Your task to perform on an android device: Open Google Chrome Image 0: 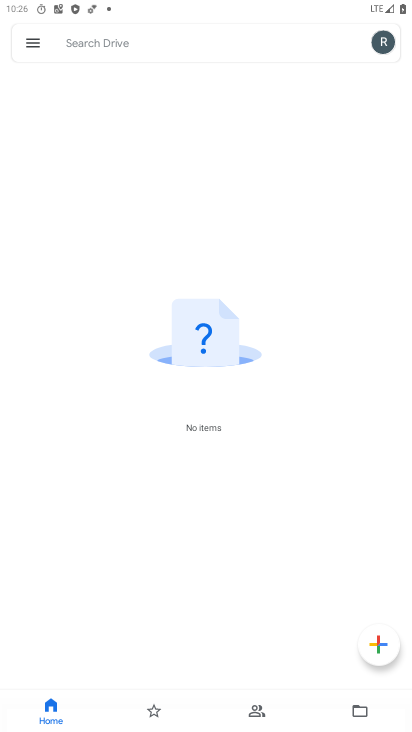
Step 0: press home button
Your task to perform on an android device: Open Google Chrome Image 1: 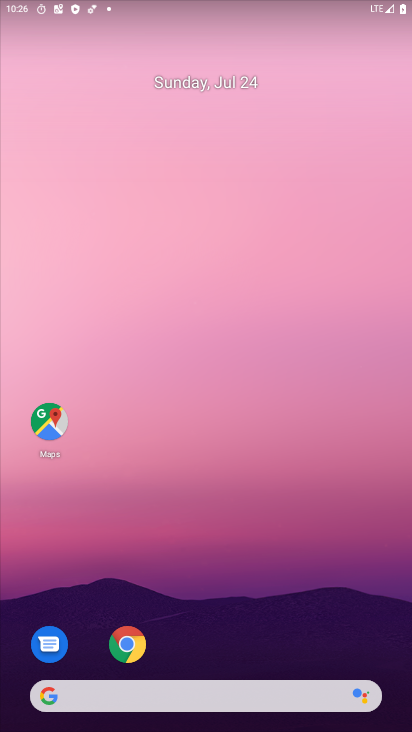
Step 1: click (136, 645)
Your task to perform on an android device: Open Google Chrome Image 2: 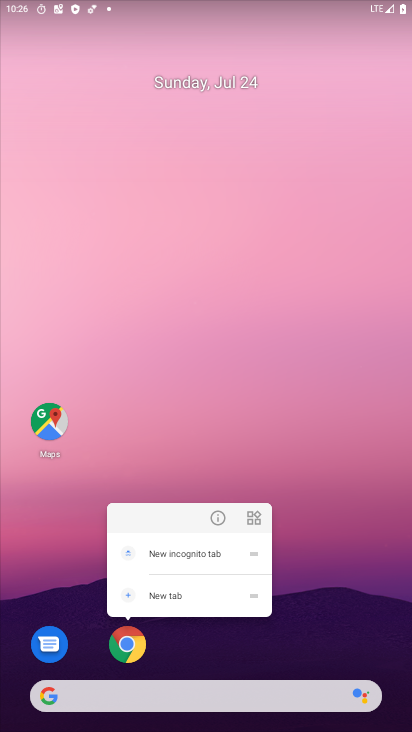
Step 2: click (136, 645)
Your task to perform on an android device: Open Google Chrome Image 3: 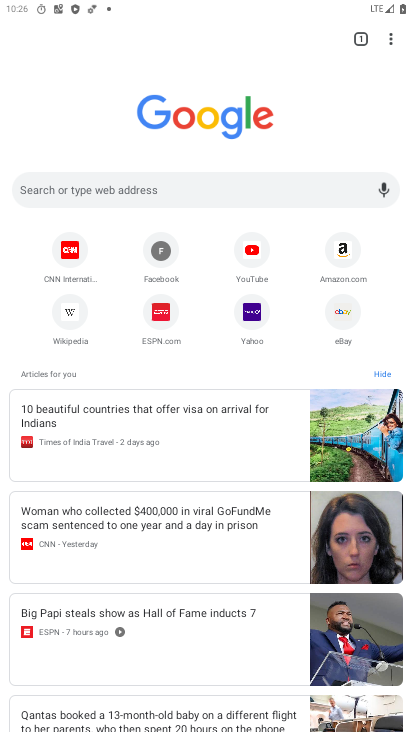
Step 3: task complete